Your task to perform on an android device: Open Google Chrome and open the bookmarks view Image 0: 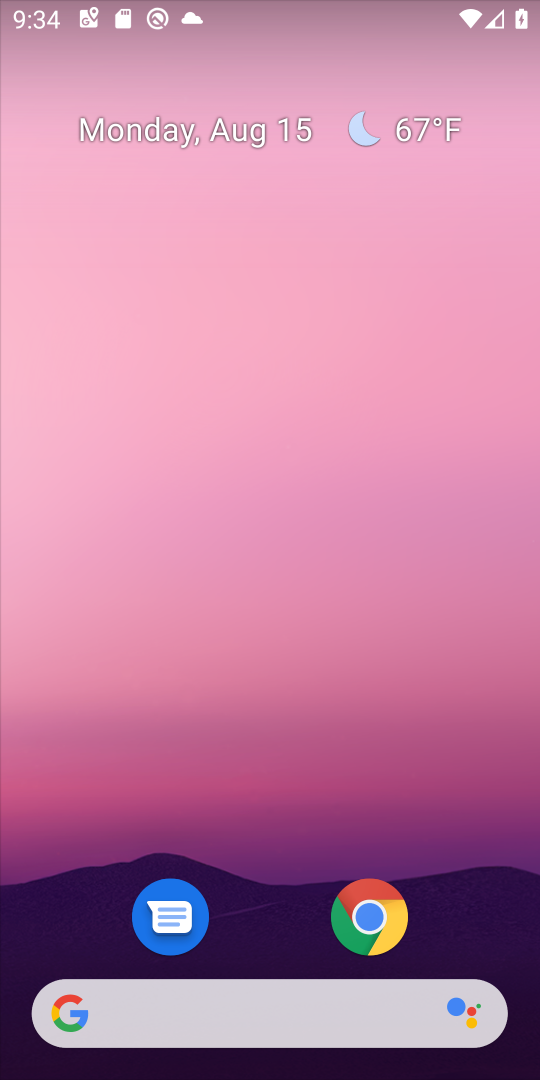
Step 0: click (374, 909)
Your task to perform on an android device: Open Google Chrome and open the bookmarks view Image 1: 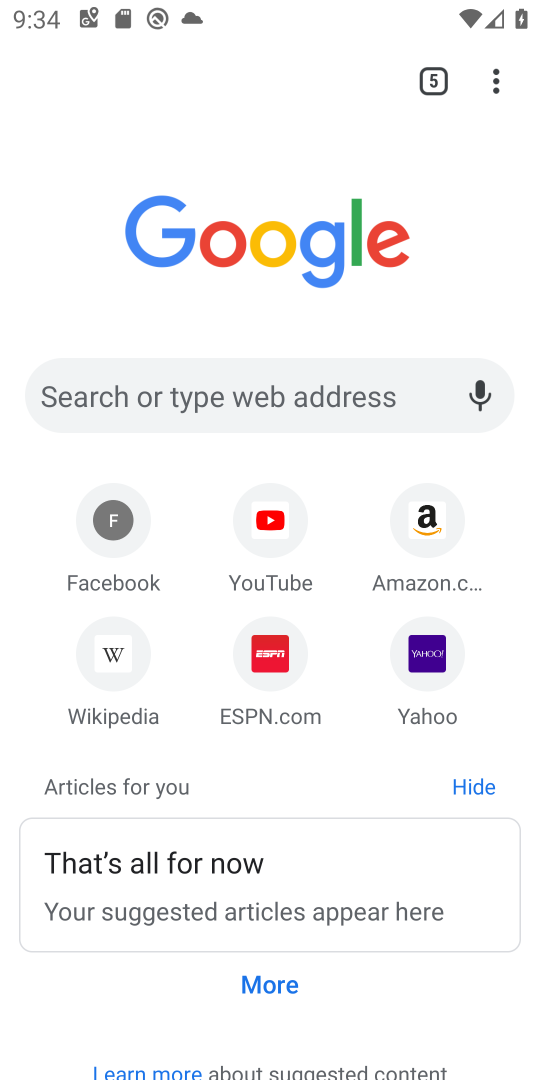
Step 1: click (495, 76)
Your task to perform on an android device: Open Google Chrome and open the bookmarks view Image 2: 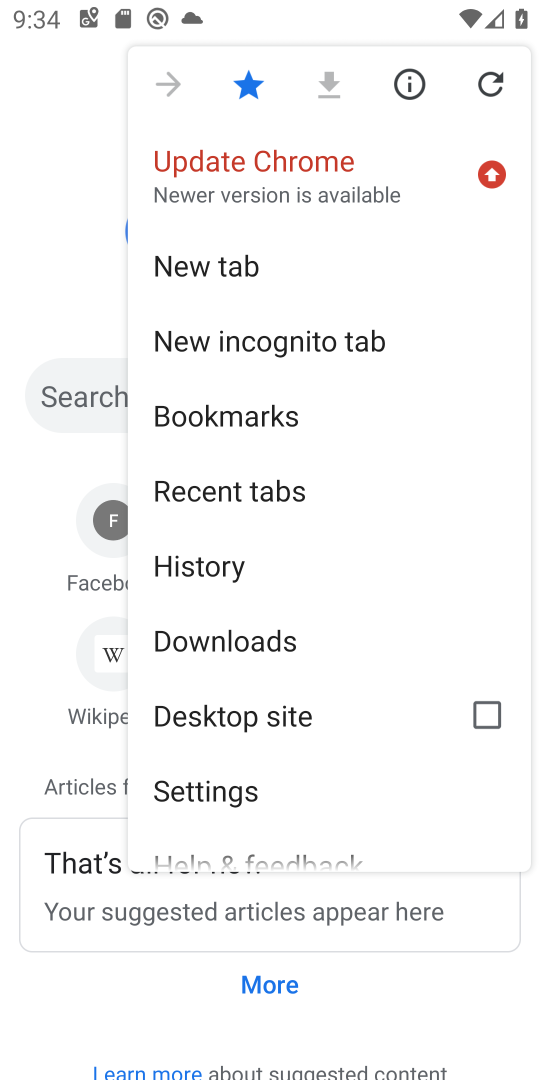
Step 2: click (278, 411)
Your task to perform on an android device: Open Google Chrome and open the bookmarks view Image 3: 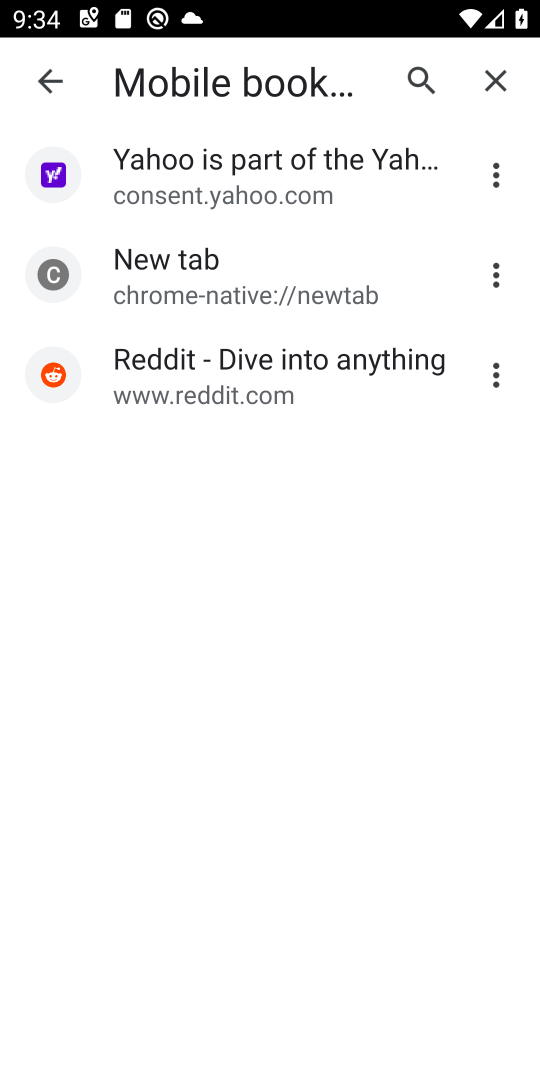
Step 3: task complete